Your task to perform on an android device: turn on the 24-hour format for clock Image 0: 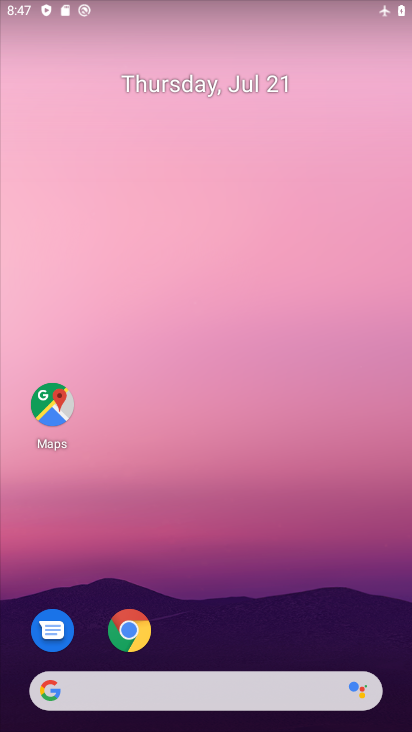
Step 0: drag from (166, 683) to (186, 319)
Your task to perform on an android device: turn on the 24-hour format for clock Image 1: 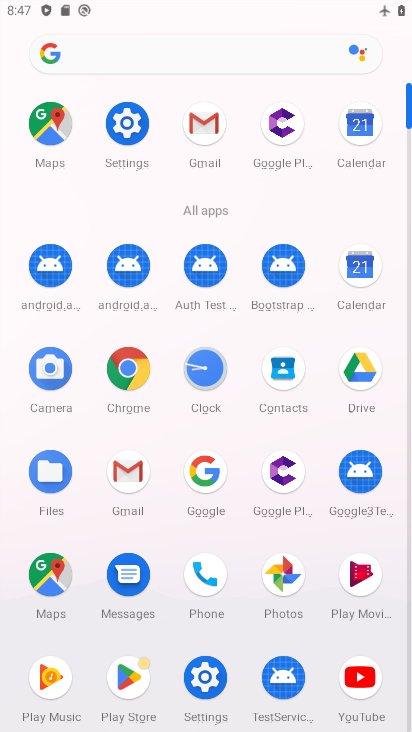
Step 1: click (205, 369)
Your task to perform on an android device: turn on the 24-hour format for clock Image 2: 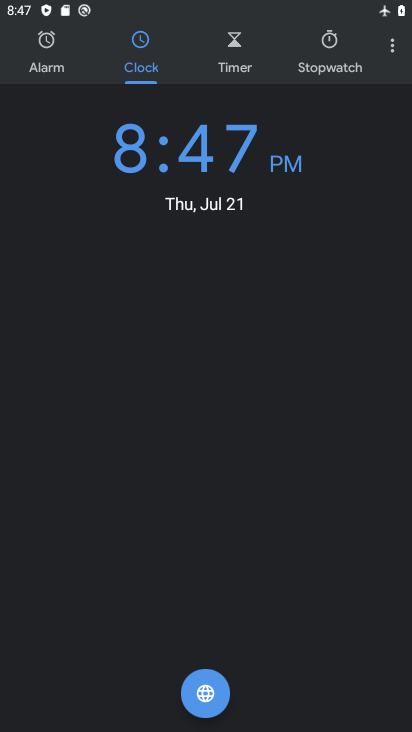
Step 2: click (390, 42)
Your task to perform on an android device: turn on the 24-hour format for clock Image 3: 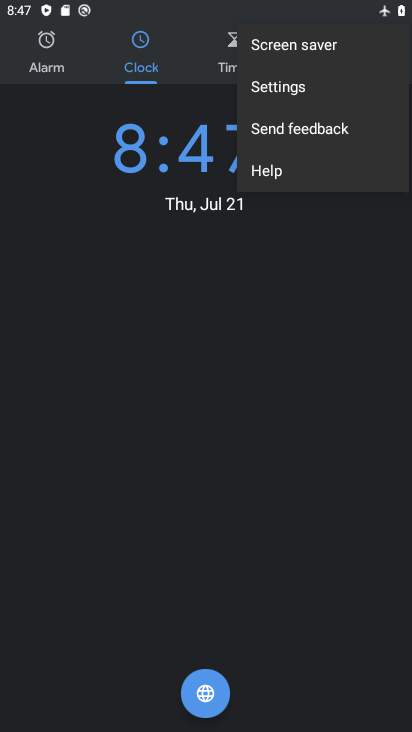
Step 3: click (270, 84)
Your task to perform on an android device: turn on the 24-hour format for clock Image 4: 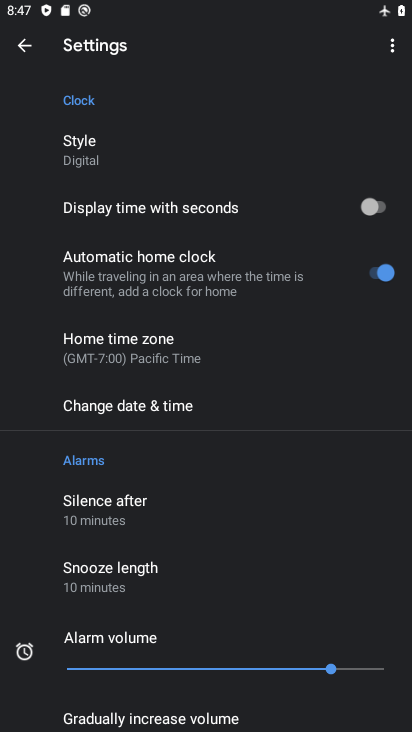
Step 4: click (112, 405)
Your task to perform on an android device: turn on the 24-hour format for clock Image 5: 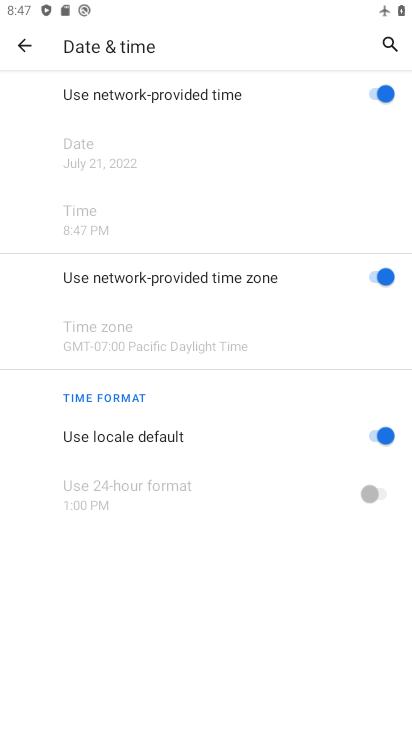
Step 5: click (370, 438)
Your task to perform on an android device: turn on the 24-hour format for clock Image 6: 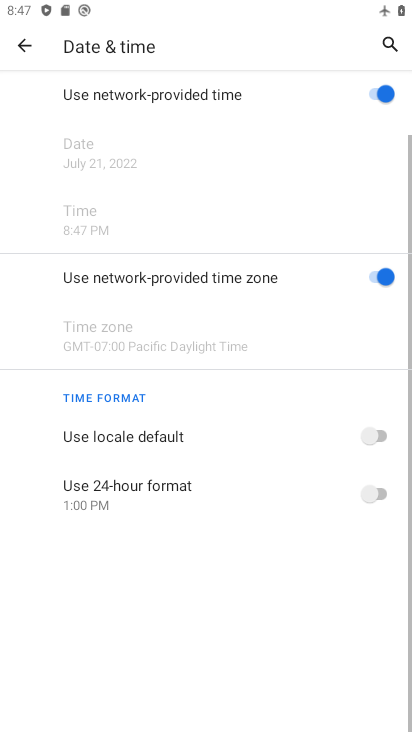
Step 6: click (376, 492)
Your task to perform on an android device: turn on the 24-hour format for clock Image 7: 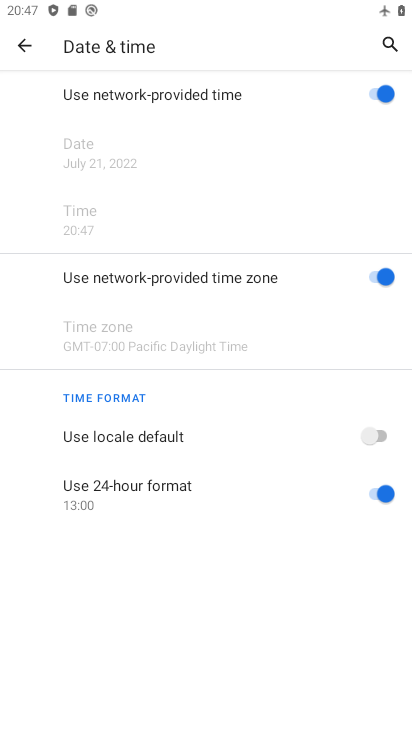
Step 7: task complete